Your task to perform on an android device: toggle priority inbox in the gmail app Image 0: 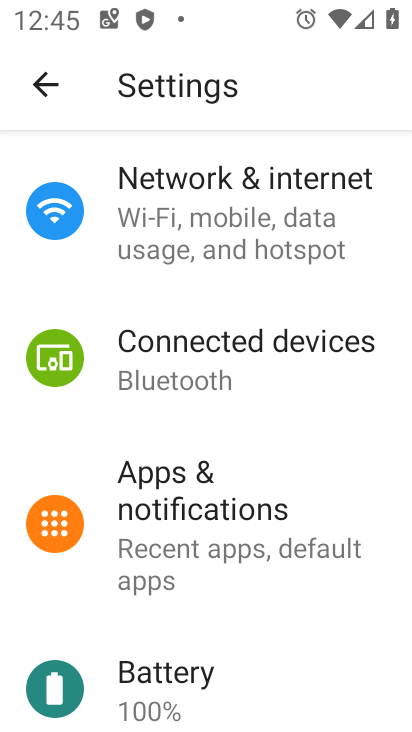
Step 0: press home button
Your task to perform on an android device: toggle priority inbox in the gmail app Image 1: 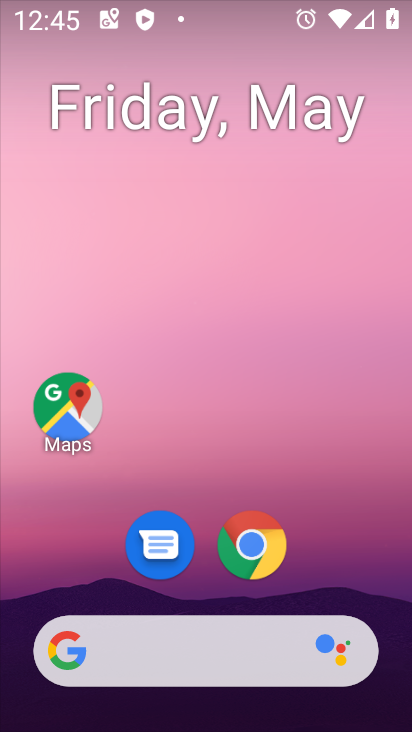
Step 1: drag from (348, 565) to (289, 213)
Your task to perform on an android device: toggle priority inbox in the gmail app Image 2: 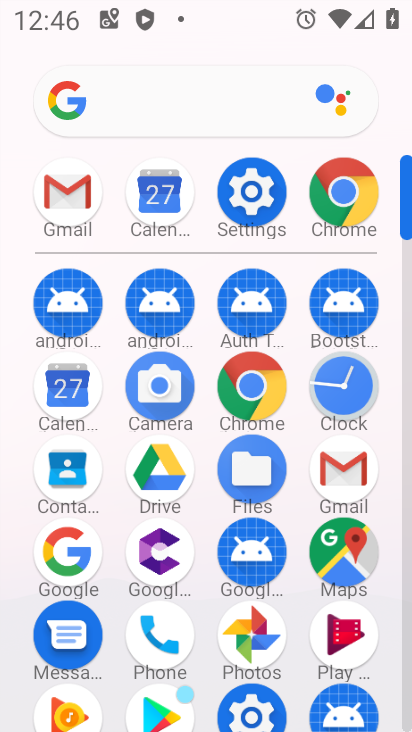
Step 2: click (330, 460)
Your task to perform on an android device: toggle priority inbox in the gmail app Image 3: 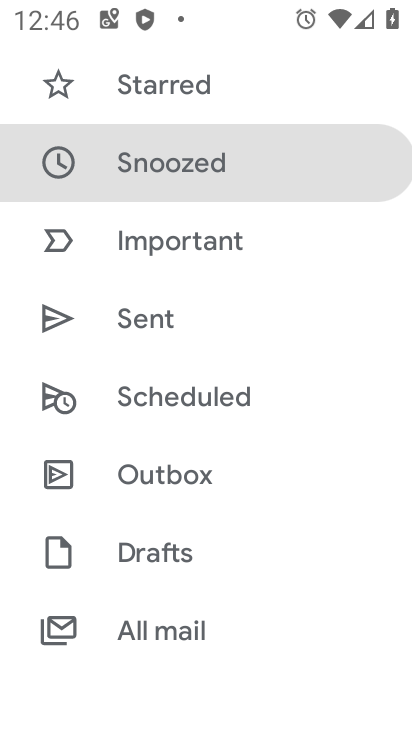
Step 3: drag from (256, 581) to (280, 147)
Your task to perform on an android device: toggle priority inbox in the gmail app Image 4: 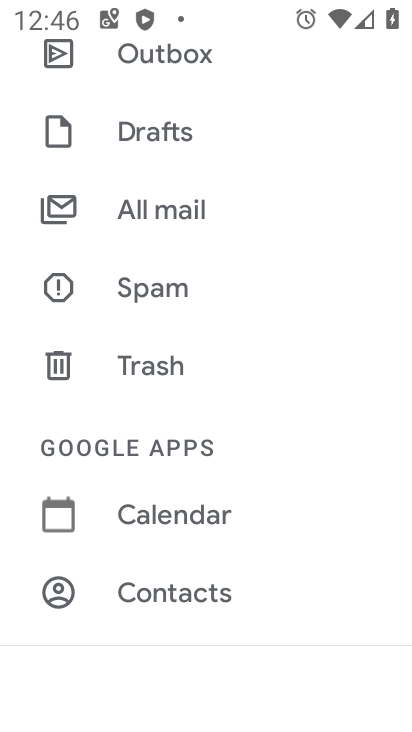
Step 4: drag from (192, 559) to (212, 220)
Your task to perform on an android device: toggle priority inbox in the gmail app Image 5: 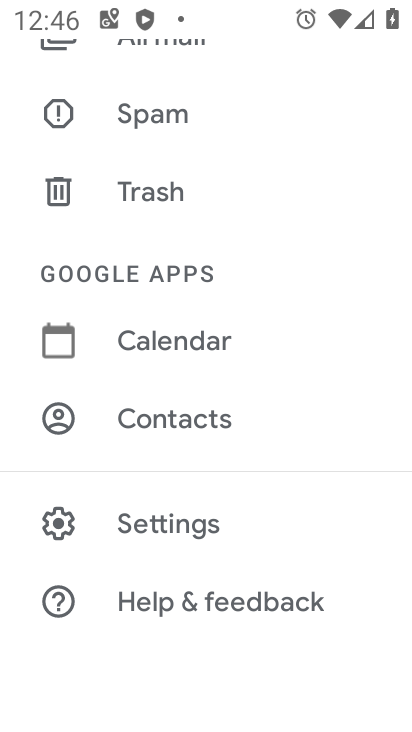
Step 5: click (189, 519)
Your task to perform on an android device: toggle priority inbox in the gmail app Image 6: 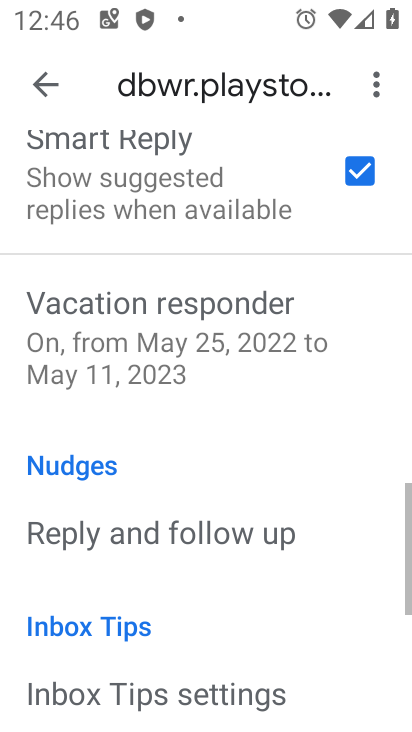
Step 6: drag from (193, 562) to (216, 299)
Your task to perform on an android device: toggle priority inbox in the gmail app Image 7: 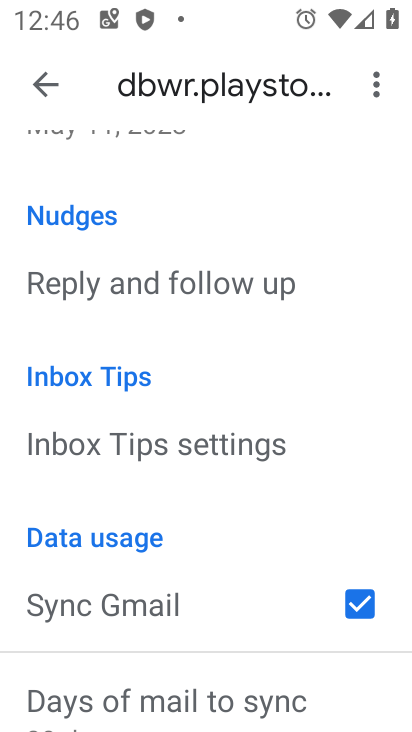
Step 7: drag from (169, 217) to (168, 583)
Your task to perform on an android device: toggle priority inbox in the gmail app Image 8: 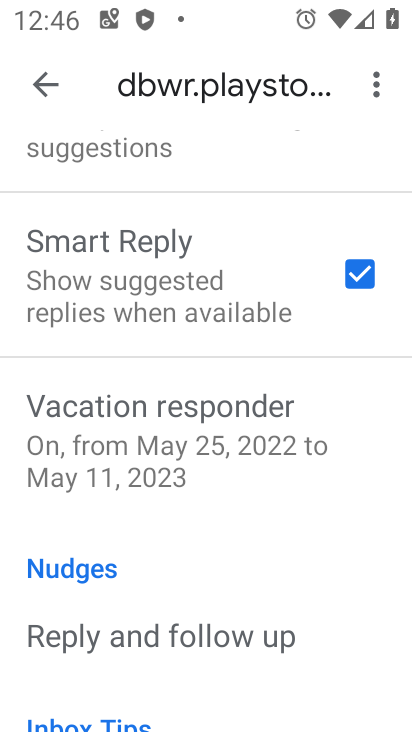
Step 8: drag from (168, 292) to (198, 604)
Your task to perform on an android device: toggle priority inbox in the gmail app Image 9: 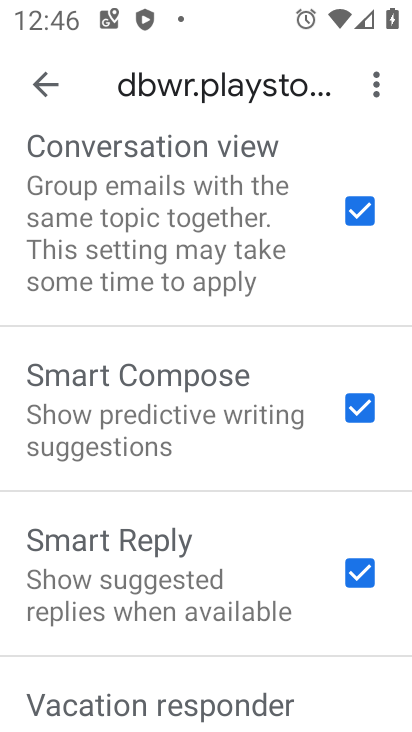
Step 9: drag from (216, 243) to (249, 613)
Your task to perform on an android device: toggle priority inbox in the gmail app Image 10: 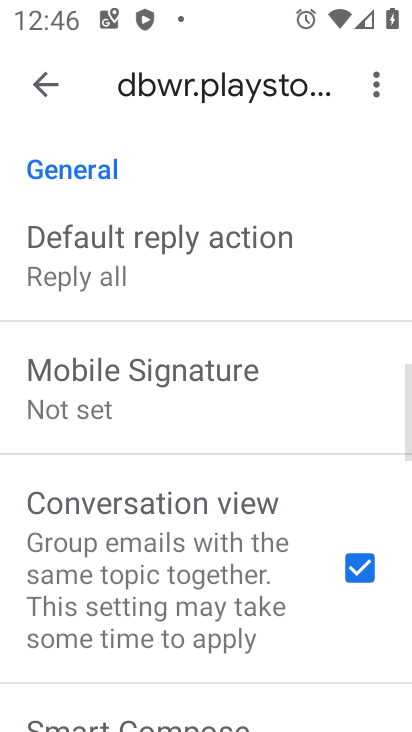
Step 10: drag from (171, 172) to (159, 449)
Your task to perform on an android device: toggle priority inbox in the gmail app Image 11: 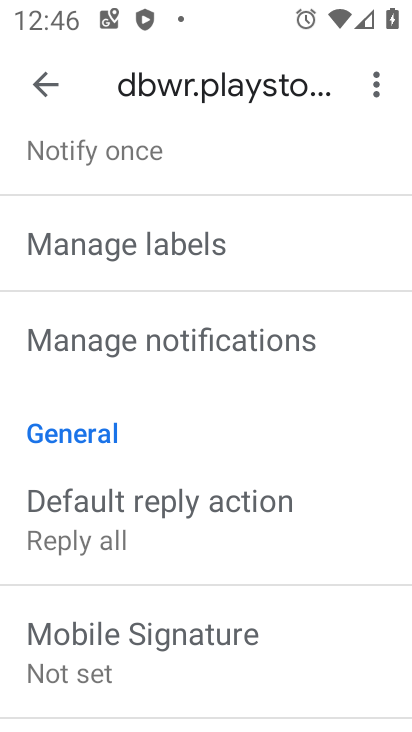
Step 11: drag from (189, 229) to (226, 692)
Your task to perform on an android device: toggle priority inbox in the gmail app Image 12: 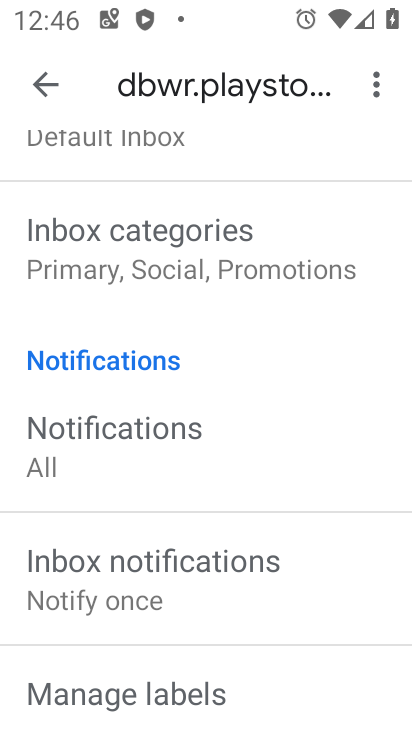
Step 12: drag from (192, 219) to (194, 629)
Your task to perform on an android device: toggle priority inbox in the gmail app Image 13: 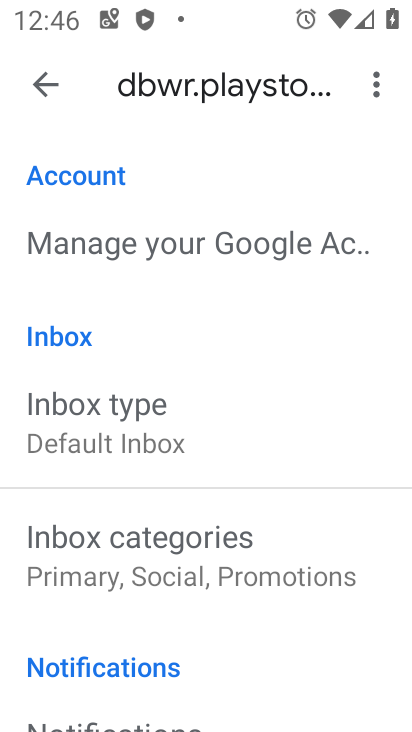
Step 13: click (147, 420)
Your task to perform on an android device: toggle priority inbox in the gmail app Image 14: 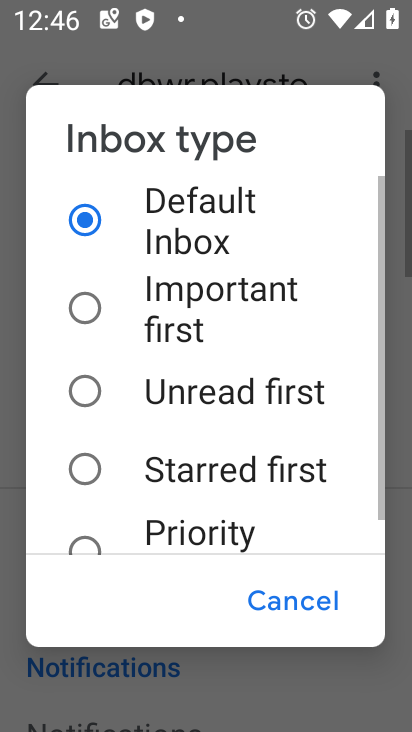
Step 14: click (179, 547)
Your task to perform on an android device: toggle priority inbox in the gmail app Image 15: 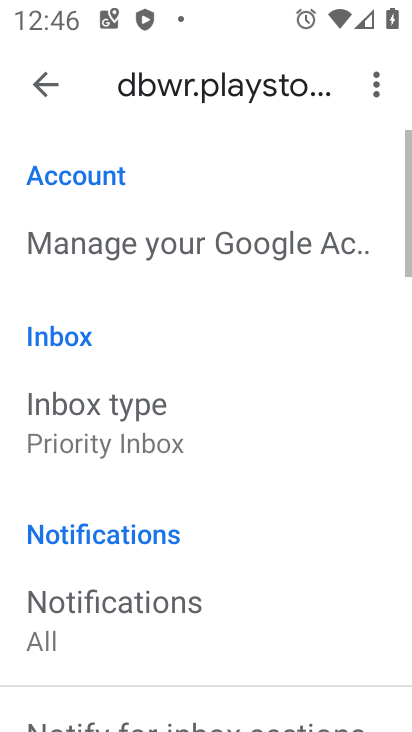
Step 15: task complete